Your task to perform on an android device: What is the news today? Image 0: 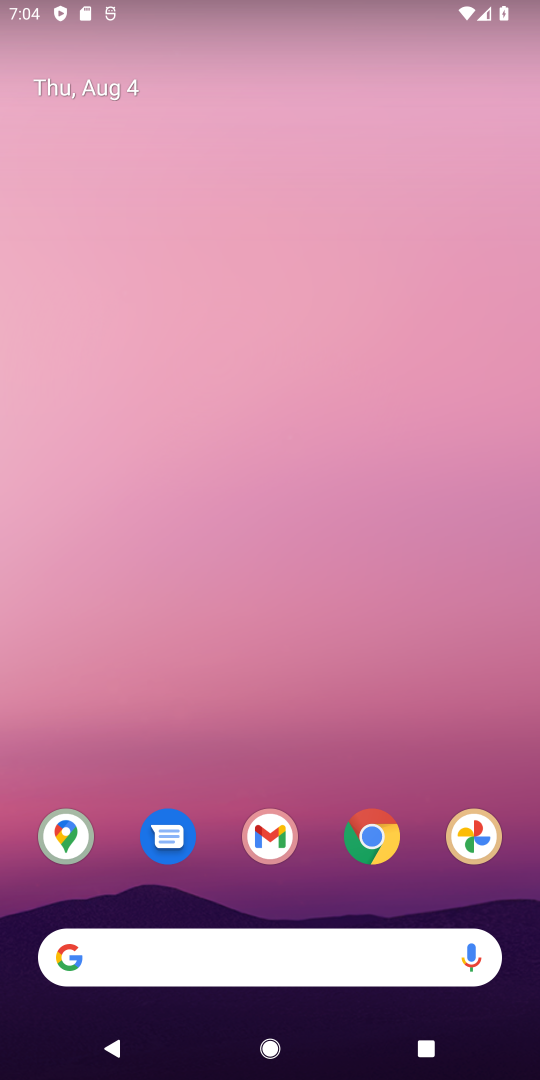
Step 0: click (177, 948)
Your task to perform on an android device: What is the news today? Image 1: 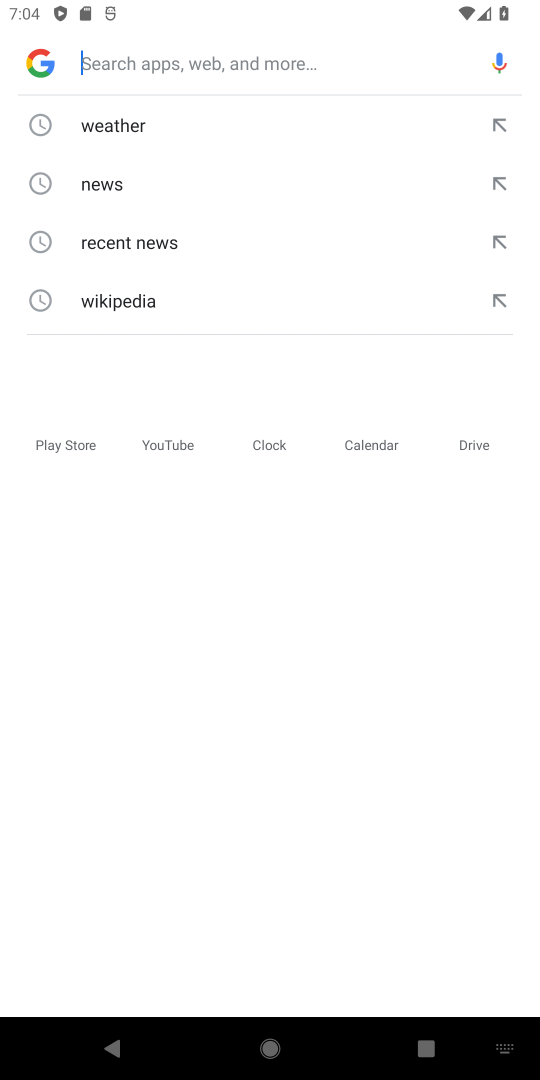
Step 1: click (118, 179)
Your task to perform on an android device: What is the news today? Image 2: 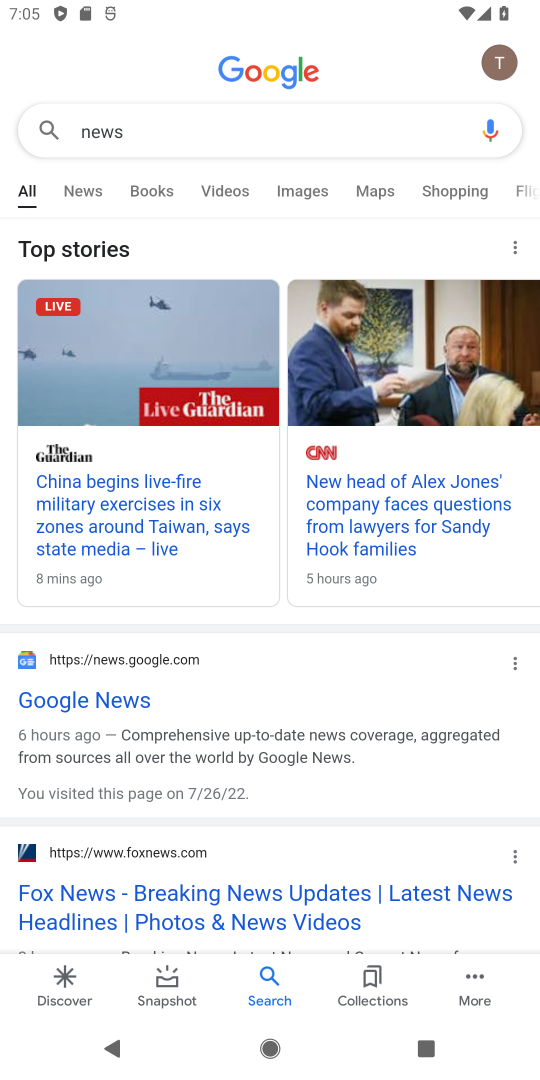
Step 2: task complete